Your task to perform on an android device: change the upload size in google photos Image 0: 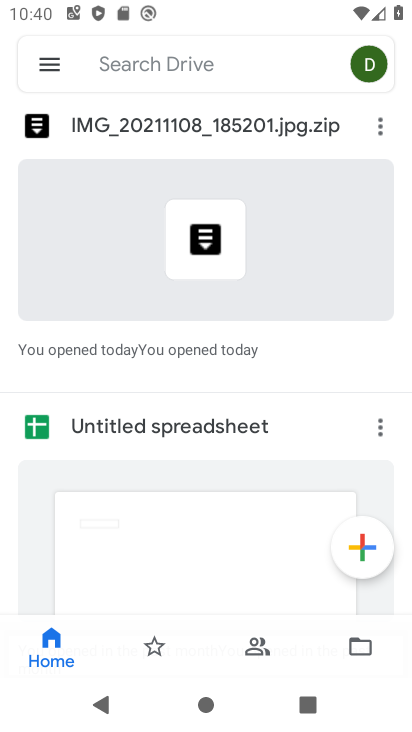
Step 0: press home button
Your task to perform on an android device: change the upload size in google photos Image 1: 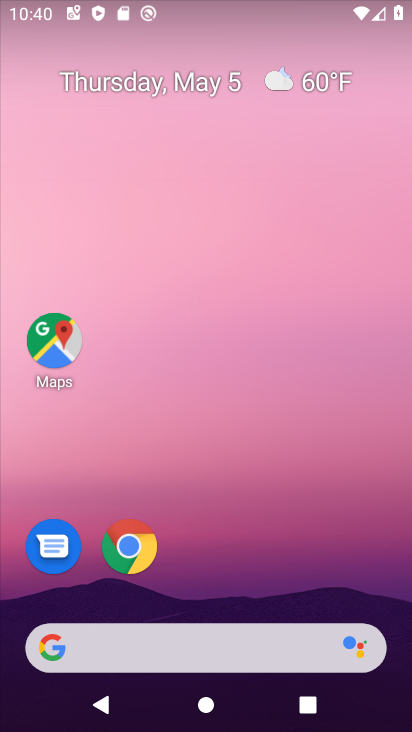
Step 1: drag from (237, 594) to (268, 105)
Your task to perform on an android device: change the upload size in google photos Image 2: 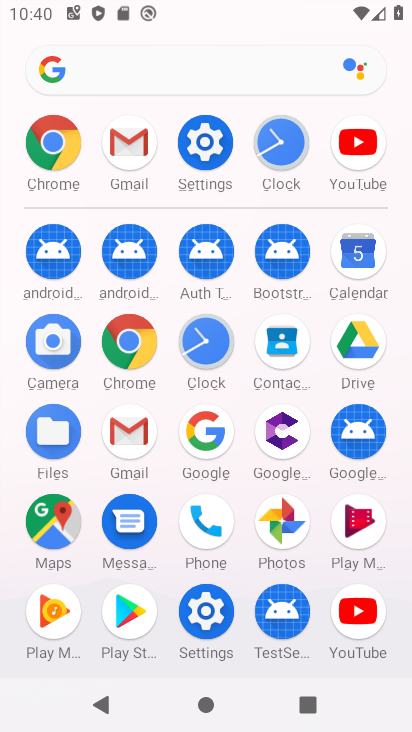
Step 2: click (289, 516)
Your task to perform on an android device: change the upload size in google photos Image 3: 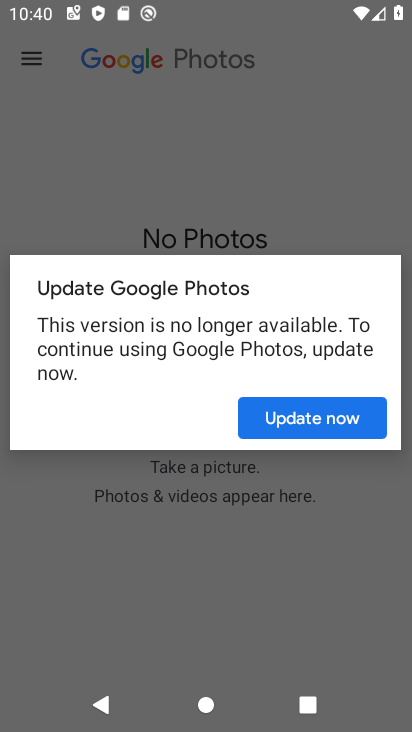
Step 3: click (301, 425)
Your task to perform on an android device: change the upload size in google photos Image 4: 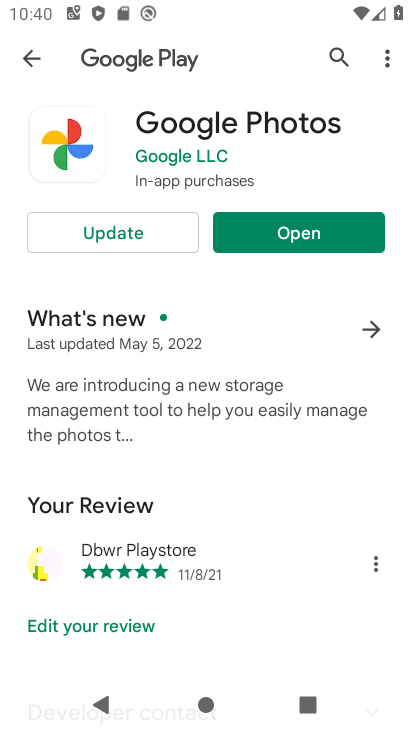
Step 4: click (112, 227)
Your task to perform on an android device: change the upload size in google photos Image 5: 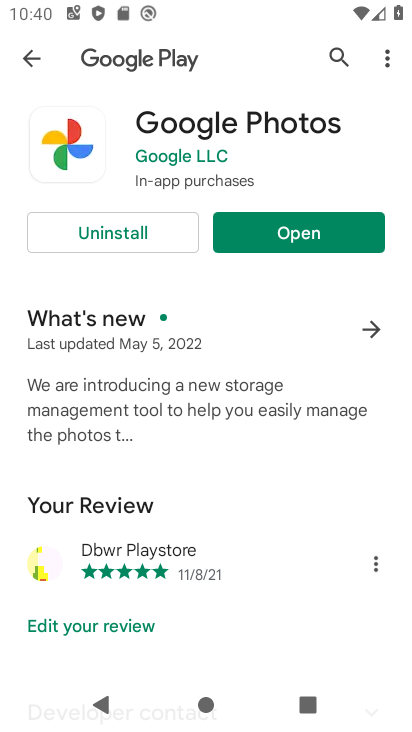
Step 5: click (287, 222)
Your task to perform on an android device: change the upload size in google photos Image 6: 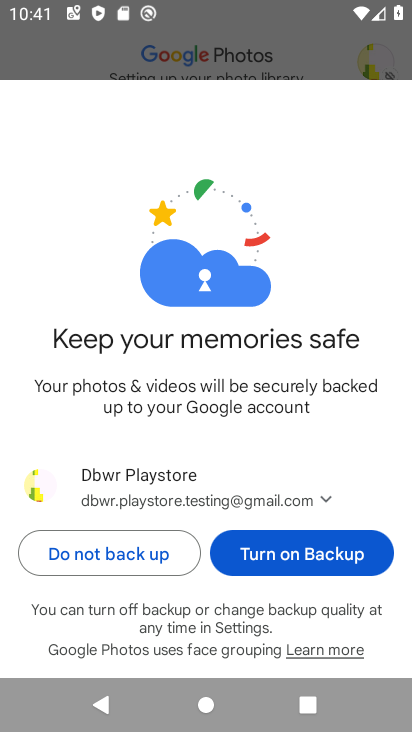
Step 6: click (128, 562)
Your task to perform on an android device: change the upload size in google photos Image 7: 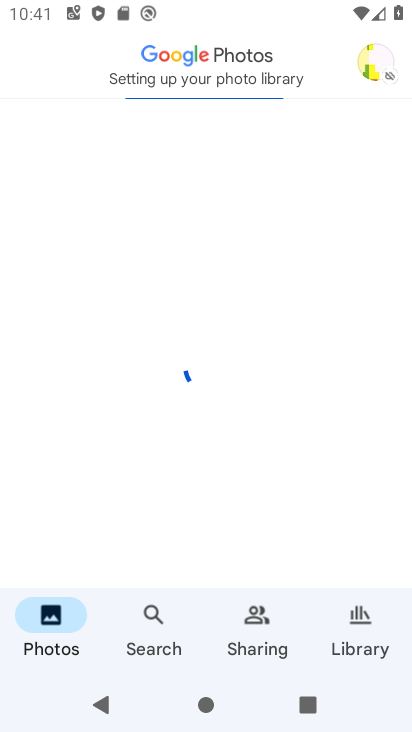
Step 7: click (365, 69)
Your task to perform on an android device: change the upload size in google photos Image 8: 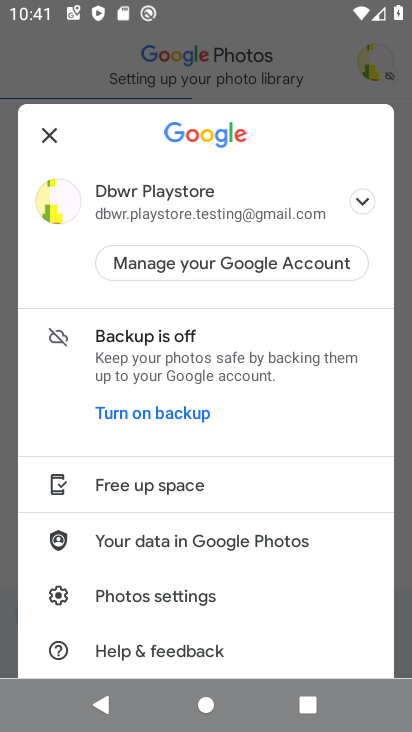
Step 8: click (151, 594)
Your task to perform on an android device: change the upload size in google photos Image 9: 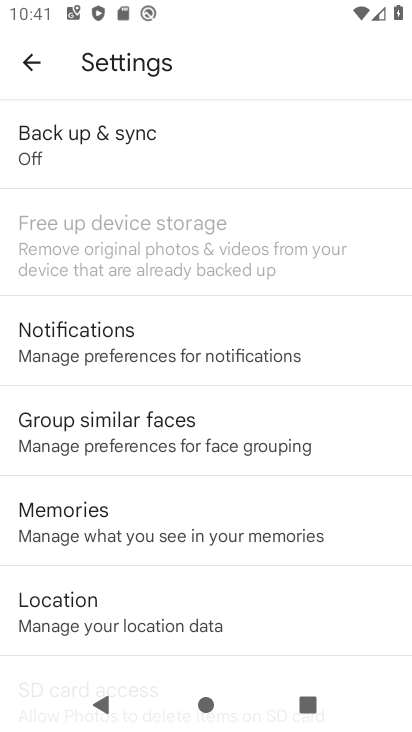
Step 9: click (99, 171)
Your task to perform on an android device: change the upload size in google photos Image 10: 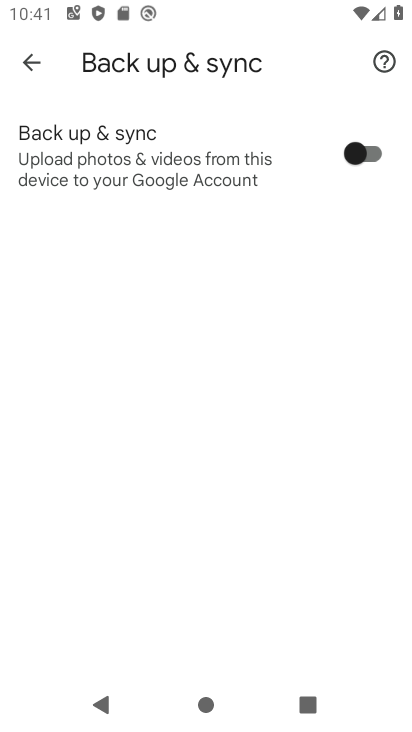
Step 10: click (167, 177)
Your task to perform on an android device: change the upload size in google photos Image 11: 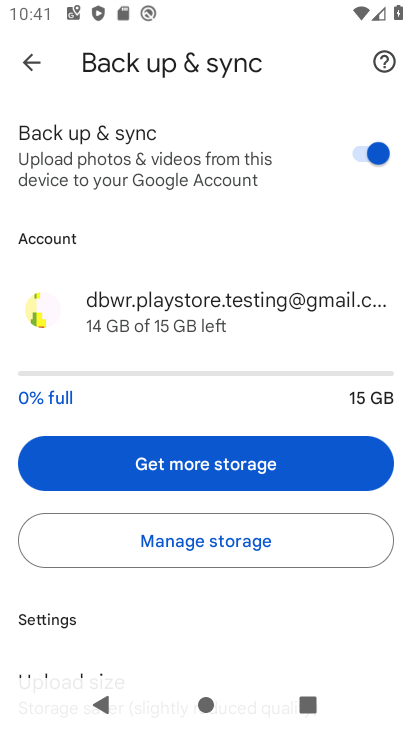
Step 11: drag from (161, 627) to (186, 240)
Your task to perform on an android device: change the upload size in google photos Image 12: 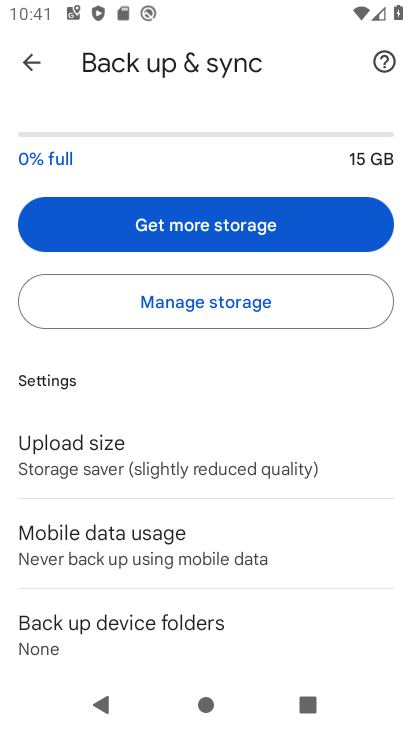
Step 12: click (155, 461)
Your task to perform on an android device: change the upload size in google photos Image 13: 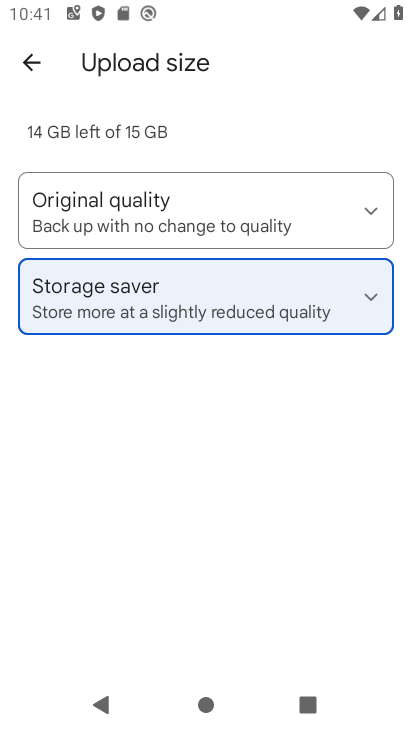
Step 13: click (172, 199)
Your task to perform on an android device: change the upload size in google photos Image 14: 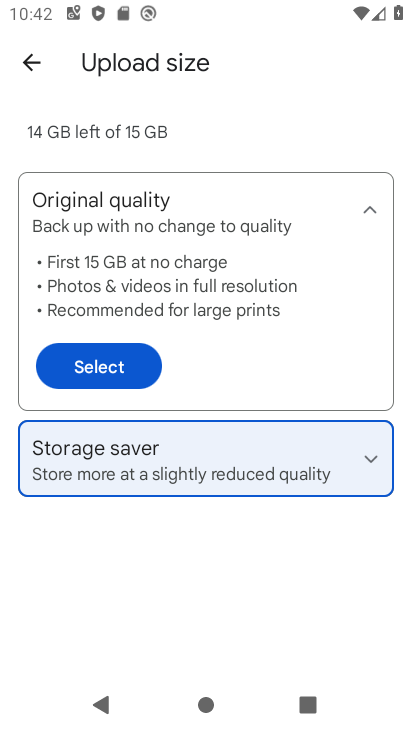
Step 14: click (98, 350)
Your task to perform on an android device: change the upload size in google photos Image 15: 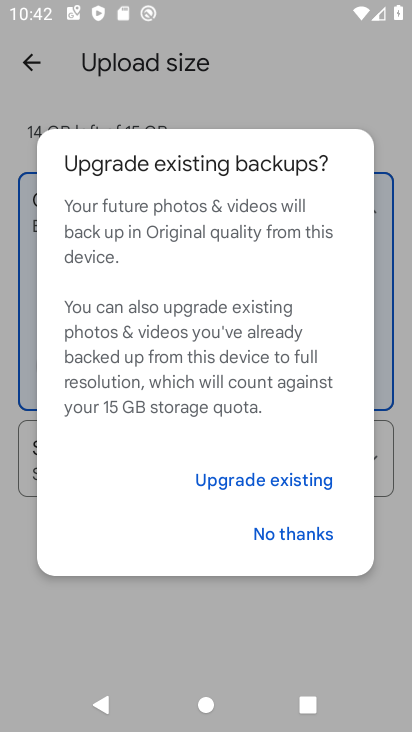
Step 15: click (275, 533)
Your task to perform on an android device: change the upload size in google photos Image 16: 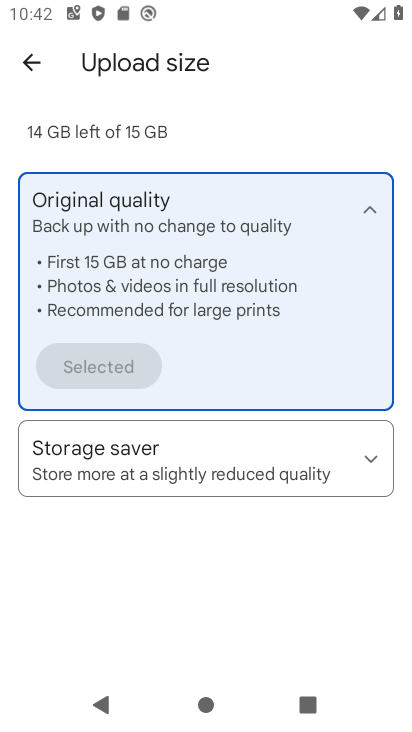
Step 16: task complete